Your task to perform on an android device: What's on my calendar today? Image 0: 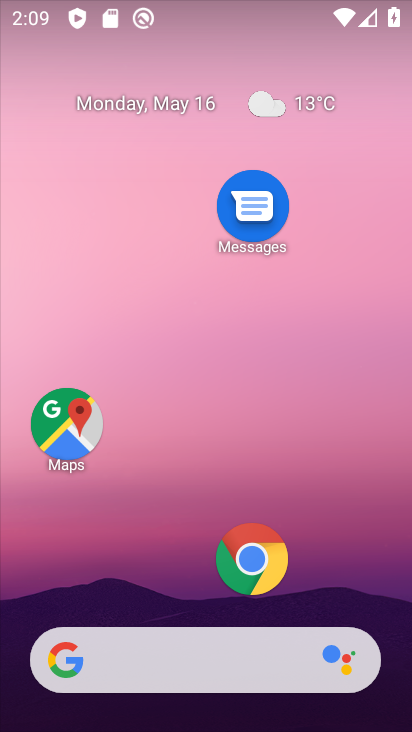
Step 0: drag from (171, 571) to (187, 96)
Your task to perform on an android device: What's on my calendar today? Image 1: 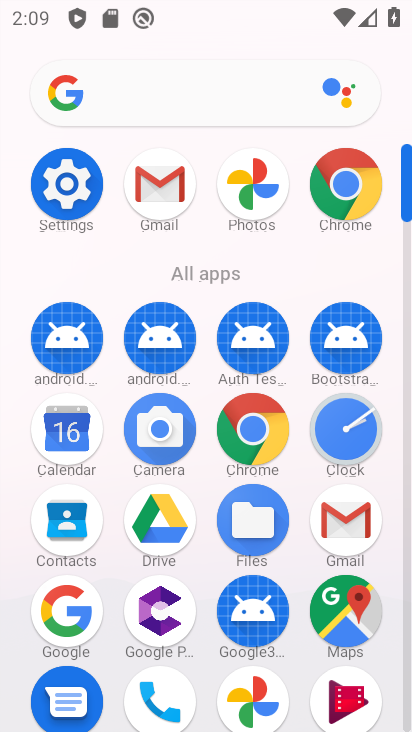
Step 1: click (75, 439)
Your task to perform on an android device: What's on my calendar today? Image 2: 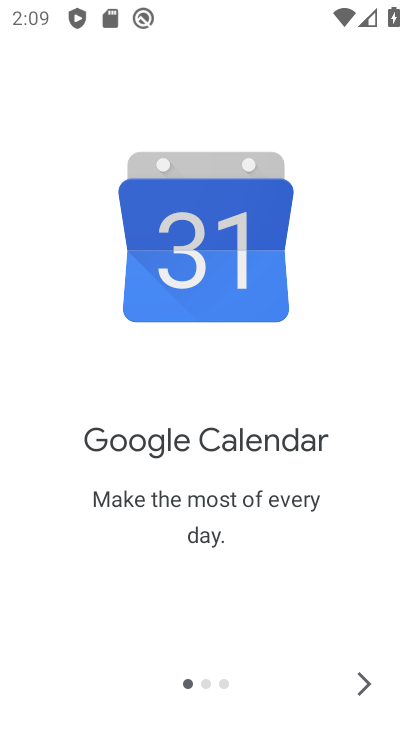
Step 2: click (358, 688)
Your task to perform on an android device: What's on my calendar today? Image 3: 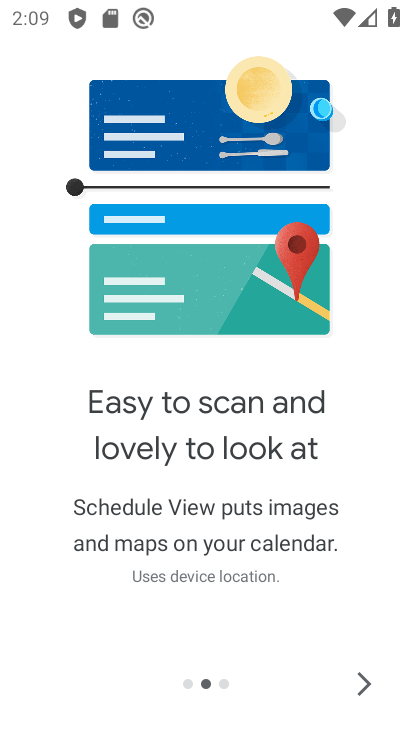
Step 3: click (360, 686)
Your task to perform on an android device: What's on my calendar today? Image 4: 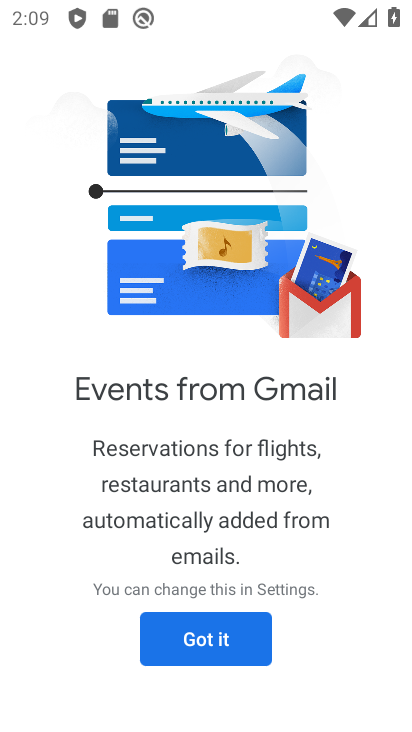
Step 4: click (239, 645)
Your task to perform on an android device: What's on my calendar today? Image 5: 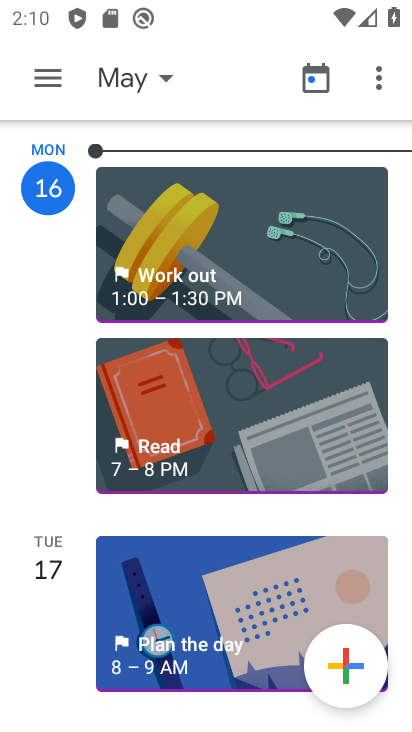
Step 5: click (172, 87)
Your task to perform on an android device: What's on my calendar today? Image 6: 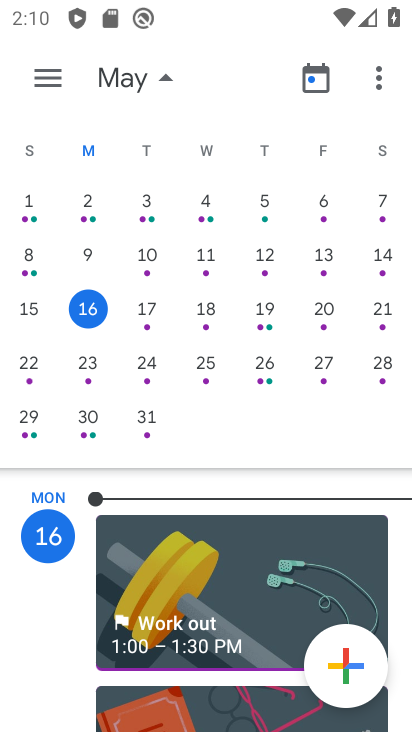
Step 6: click (155, 304)
Your task to perform on an android device: What's on my calendar today? Image 7: 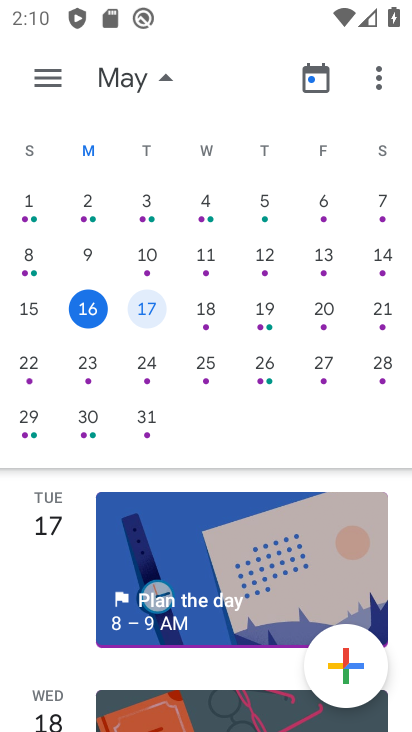
Step 7: task complete